Your task to perform on an android device: Open Google Chrome and open the bookmarks view Image 0: 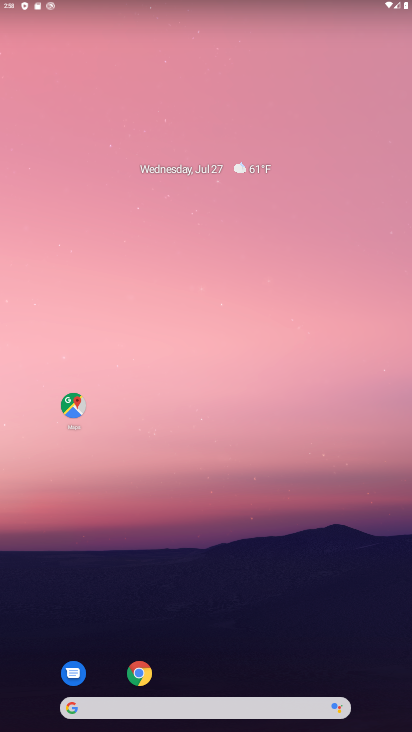
Step 0: click (145, 676)
Your task to perform on an android device: Open Google Chrome and open the bookmarks view Image 1: 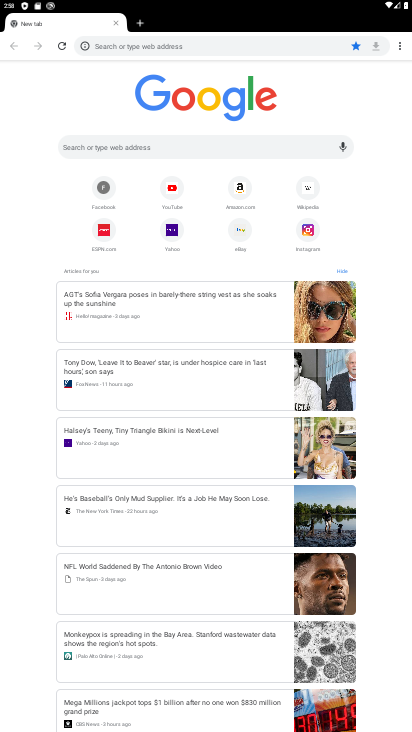
Step 1: click (400, 43)
Your task to perform on an android device: Open Google Chrome and open the bookmarks view Image 2: 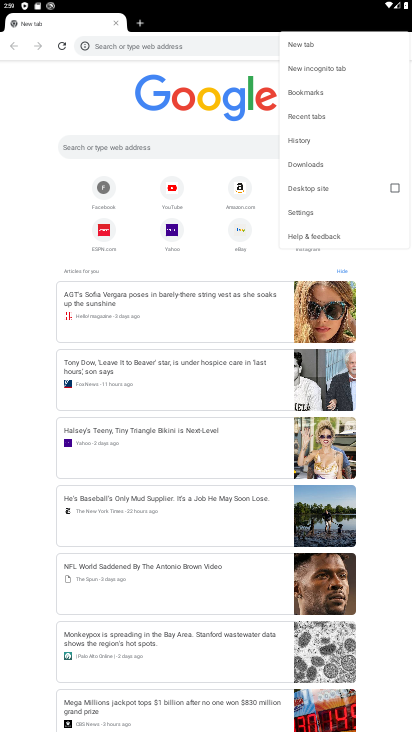
Step 2: click (309, 91)
Your task to perform on an android device: Open Google Chrome and open the bookmarks view Image 3: 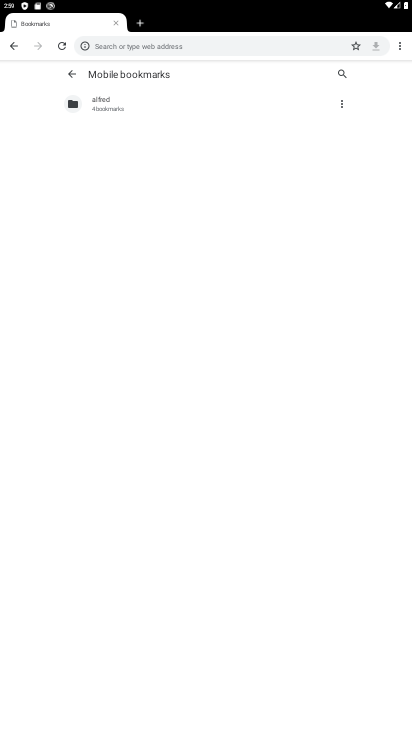
Step 3: task complete